Your task to perform on an android device: Open the phone app and click the voicemail tab. Image 0: 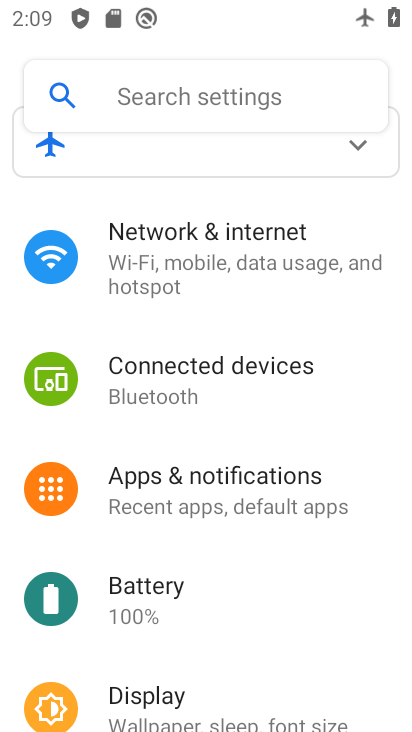
Step 0: press home button
Your task to perform on an android device: Open the phone app and click the voicemail tab. Image 1: 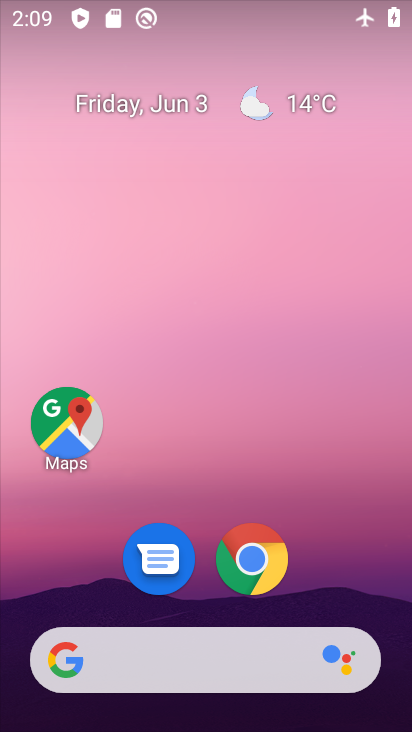
Step 1: drag from (193, 618) to (257, 13)
Your task to perform on an android device: Open the phone app and click the voicemail tab. Image 2: 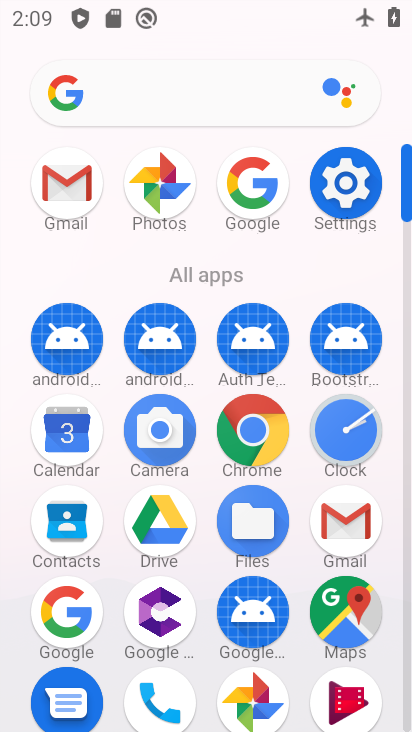
Step 2: click (170, 687)
Your task to perform on an android device: Open the phone app and click the voicemail tab. Image 3: 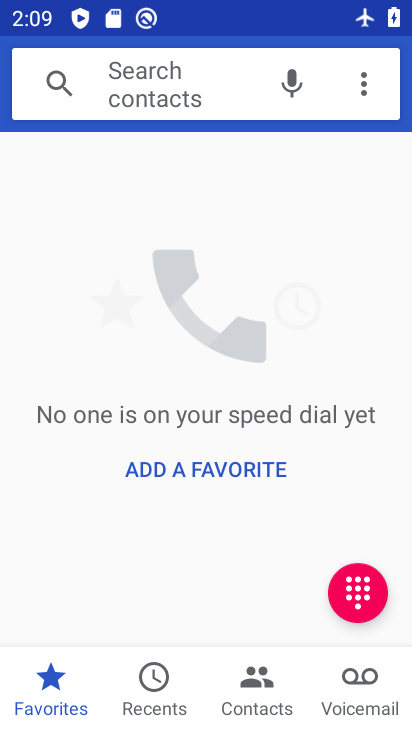
Step 3: click (343, 696)
Your task to perform on an android device: Open the phone app and click the voicemail tab. Image 4: 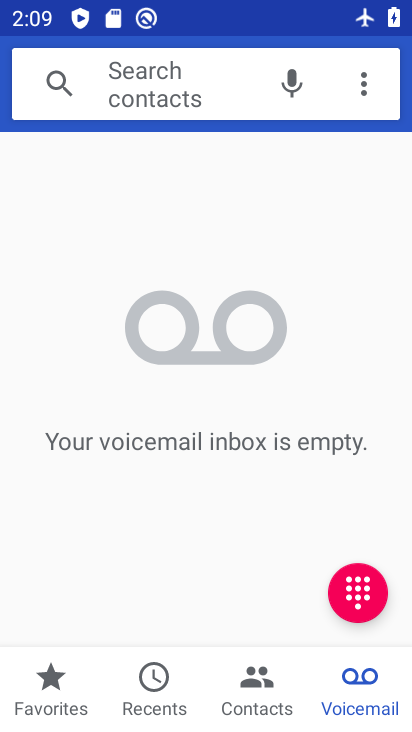
Step 4: task complete